Your task to perform on an android device: change the clock display to digital Image 0: 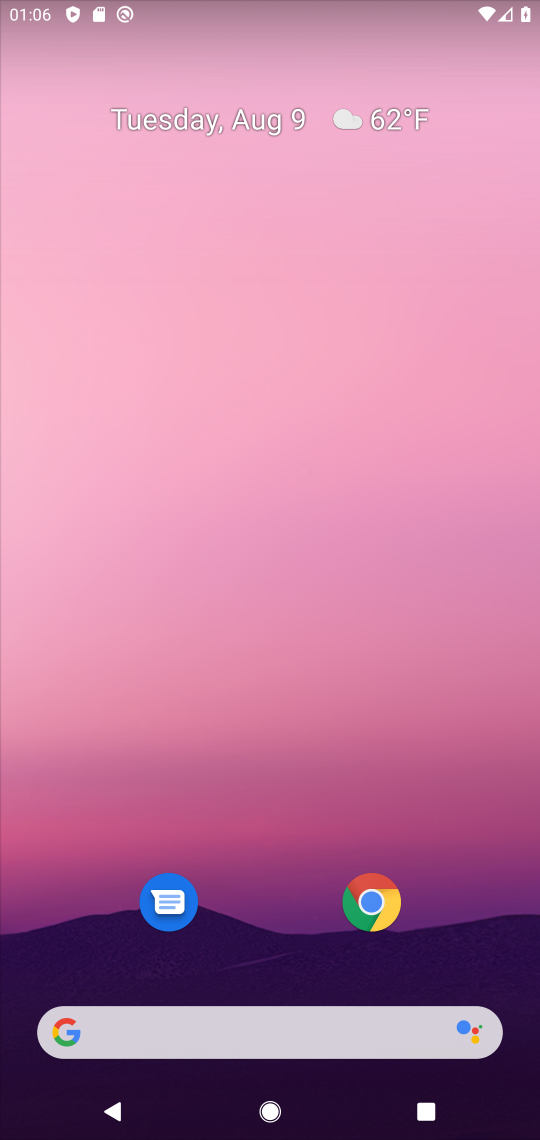
Step 0: drag from (216, 988) to (250, 296)
Your task to perform on an android device: change the clock display to digital Image 1: 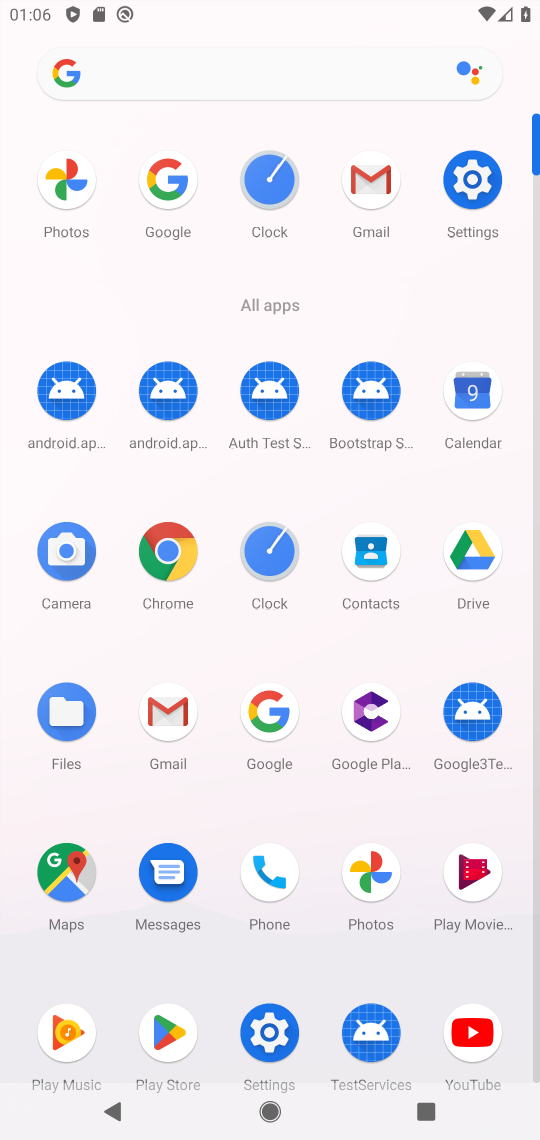
Step 1: click (255, 174)
Your task to perform on an android device: change the clock display to digital Image 2: 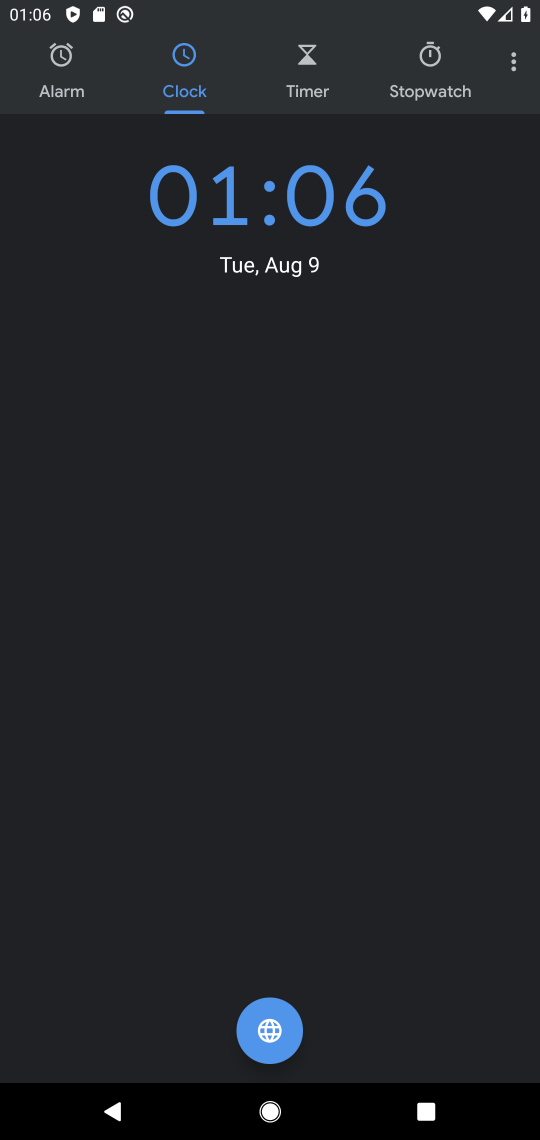
Step 2: click (513, 68)
Your task to perform on an android device: change the clock display to digital Image 3: 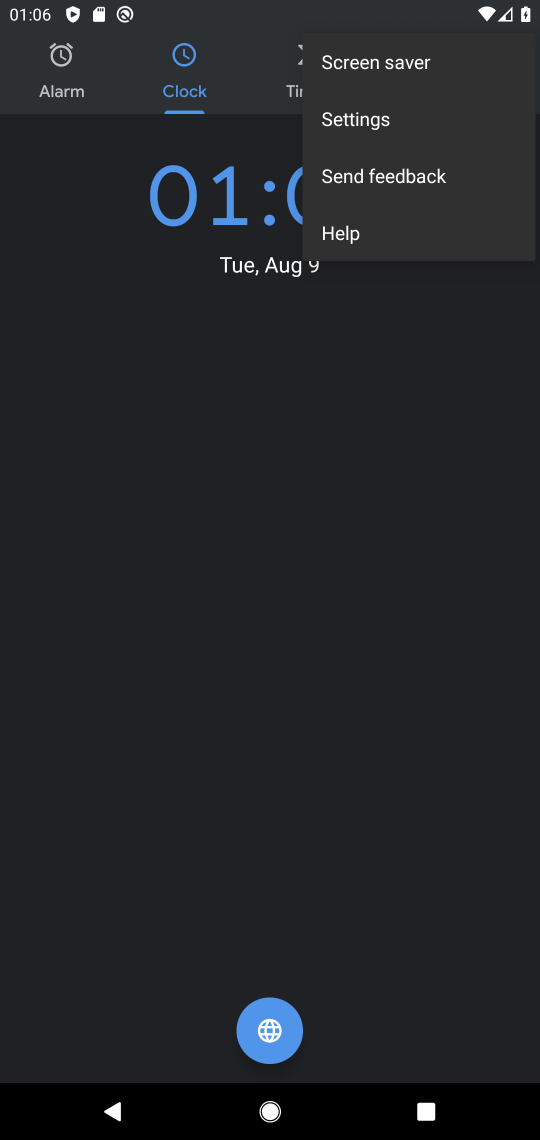
Step 3: click (378, 125)
Your task to perform on an android device: change the clock display to digital Image 4: 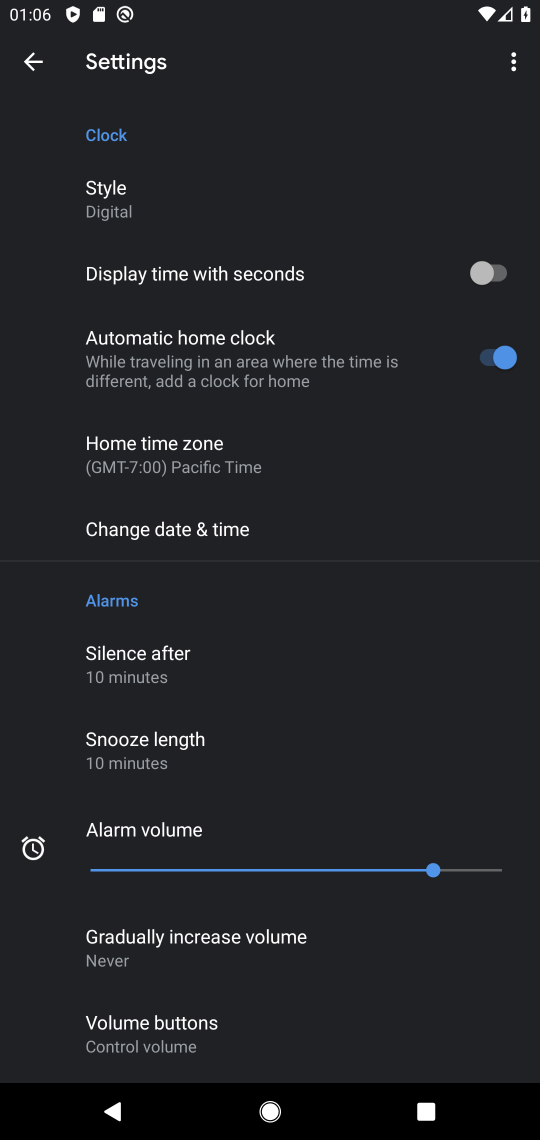
Step 4: task complete